Your task to perform on an android device: open chrome privacy settings Image 0: 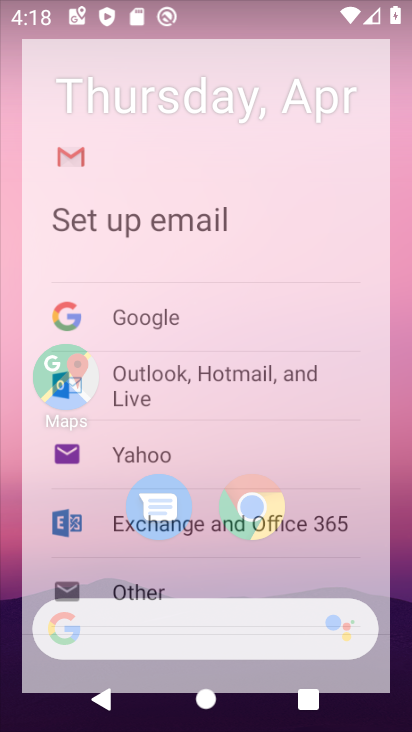
Step 0: drag from (315, 285) to (295, 156)
Your task to perform on an android device: open chrome privacy settings Image 1: 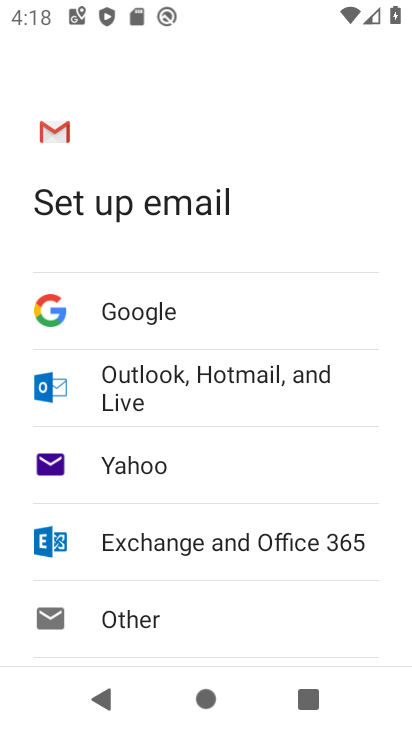
Step 1: press back button
Your task to perform on an android device: open chrome privacy settings Image 2: 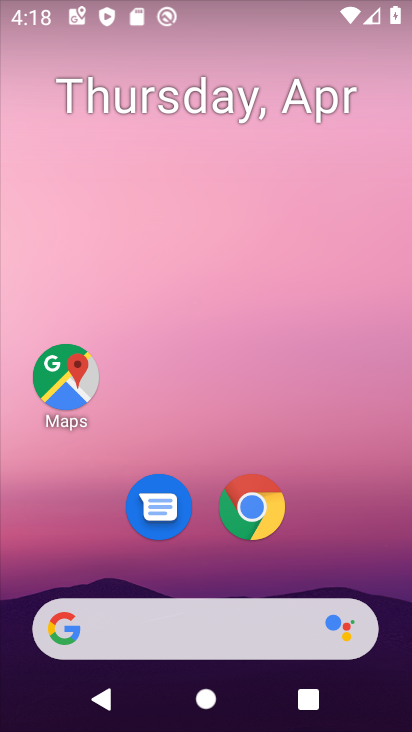
Step 2: drag from (337, 451) to (310, 136)
Your task to perform on an android device: open chrome privacy settings Image 3: 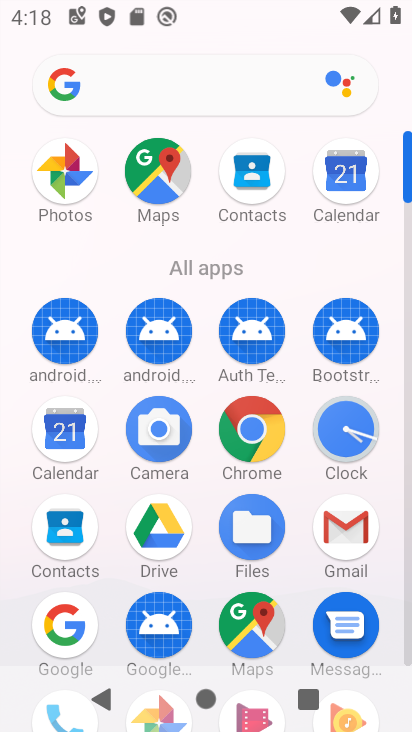
Step 3: drag from (381, 399) to (367, 217)
Your task to perform on an android device: open chrome privacy settings Image 4: 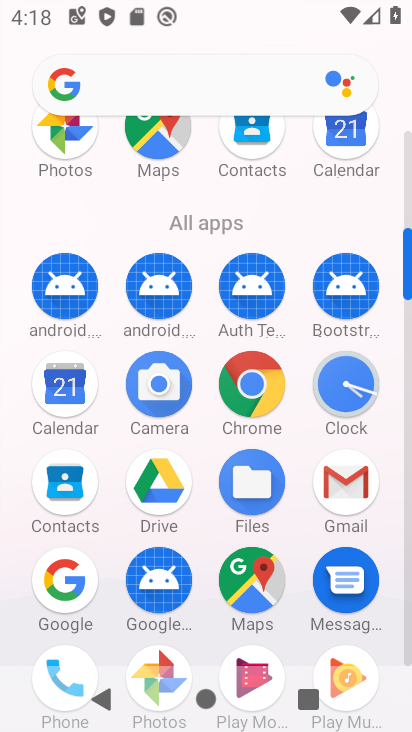
Step 4: drag from (392, 593) to (374, 253)
Your task to perform on an android device: open chrome privacy settings Image 5: 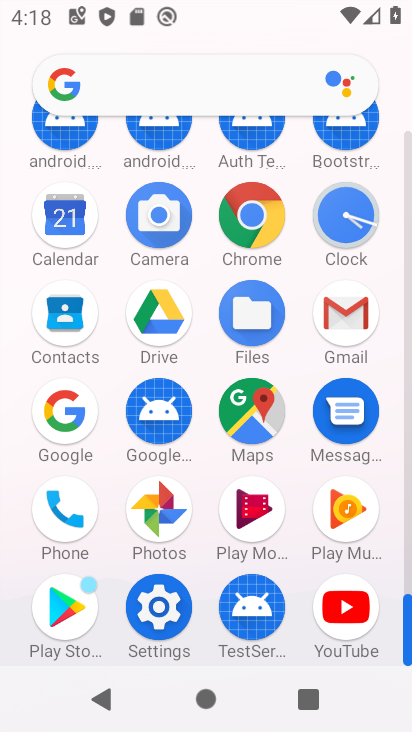
Step 5: click (165, 593)
Your task to perform on an android device: open chrome privacy settings Image 6: 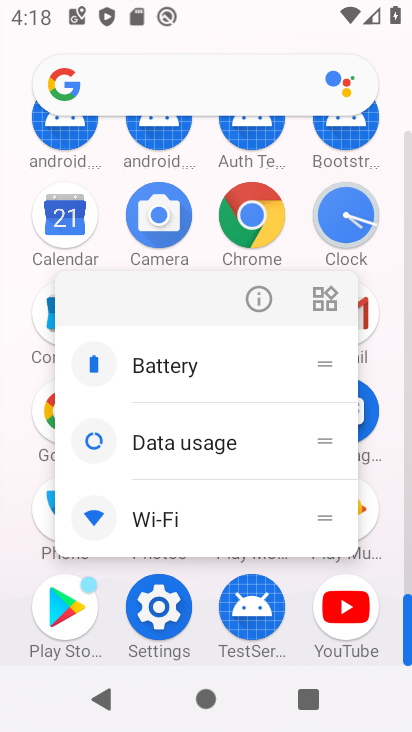
Step 6: click (164, 591)
Your task to perform on an android device: open chrome privacy settings Image 7: 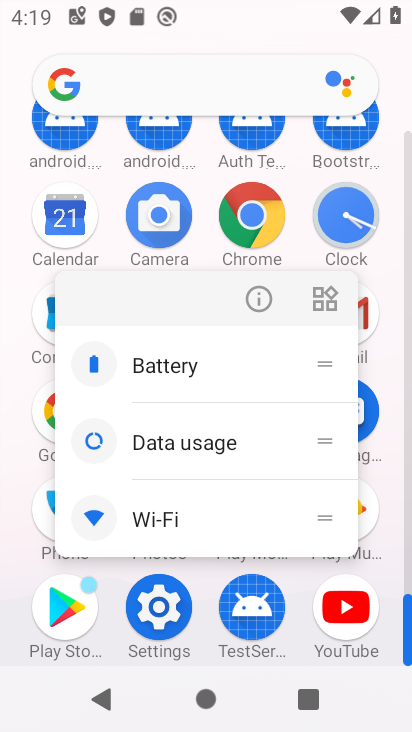
Step 7: click (161, 610)
Your task to perform on an android device: open chrome privacy settings Image 8: 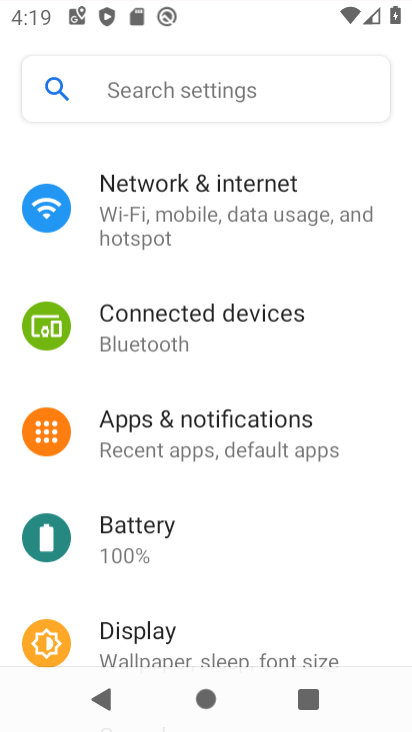
Step 8: click (162, 588)
Your task to perform on an android device: open chrome privacy settings Image 9: 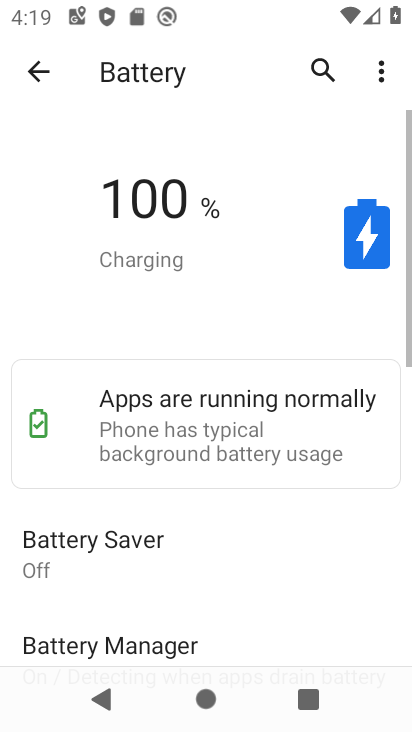
Step 9: click (16, 78)
Your task to perform on an android device: open chrome privacy settings Image 10: 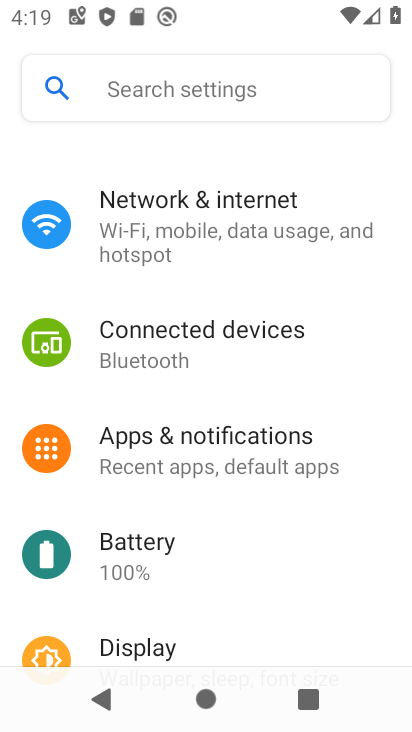
Step 10: drag from (252, 554) to (230, 260)
Your task to perform on an android device: open chrome privacy settings Image 11: 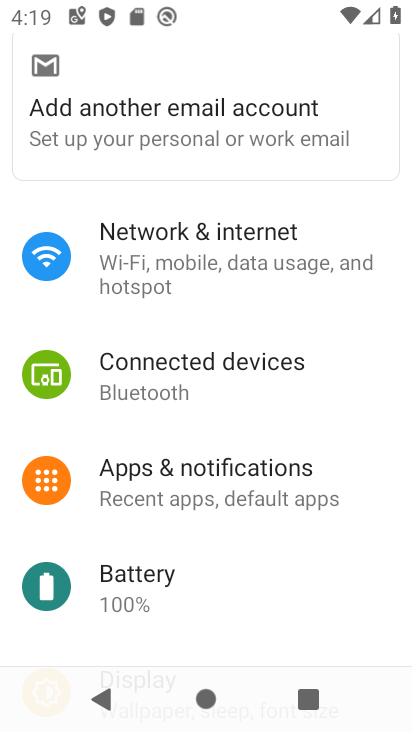
Step 11: drag from (212, 602) to (247, 241)
Your task to perform on an android device: open chrome privacy settings Image 12: 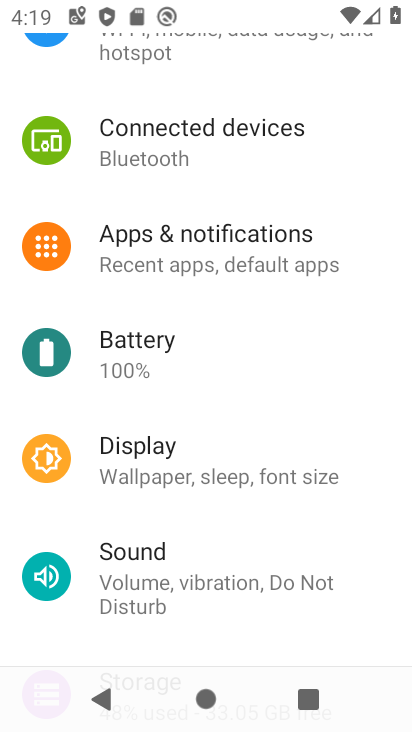
Step 12: drag from (222, 569) to (271, 206)
Your task to perform on an android device: open chrome privacy settings Image 13: 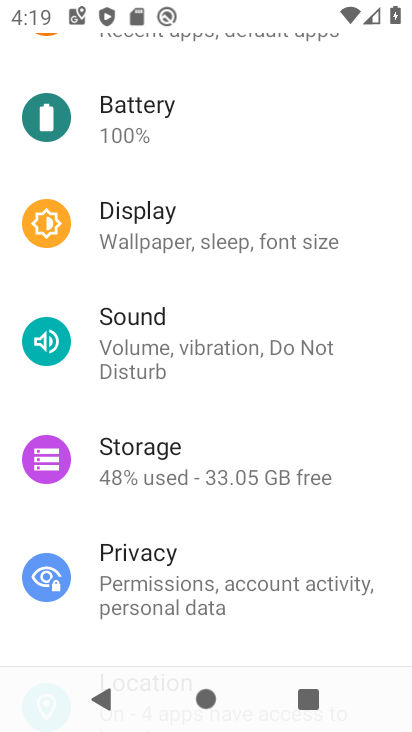
Step 13: drag from (250, 549) to (278, 159)
Your task to perform on an android device: open chrome privacy settings Image 14: 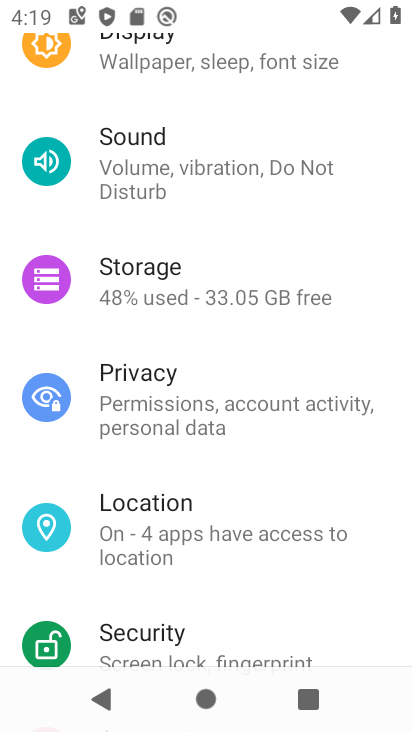
Step 14: click (167, 386)
Your task to perform on an android device: open chrome privacy settings Image 15: 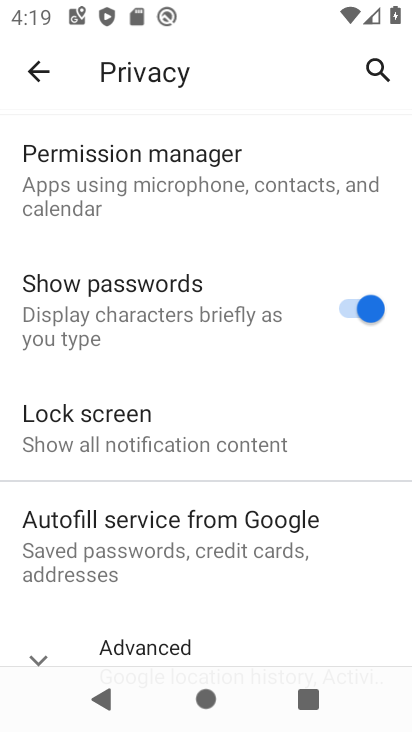
Step 15: task complete